Your task to perform on an android device: turn on javascript in the chrome app Image 0: 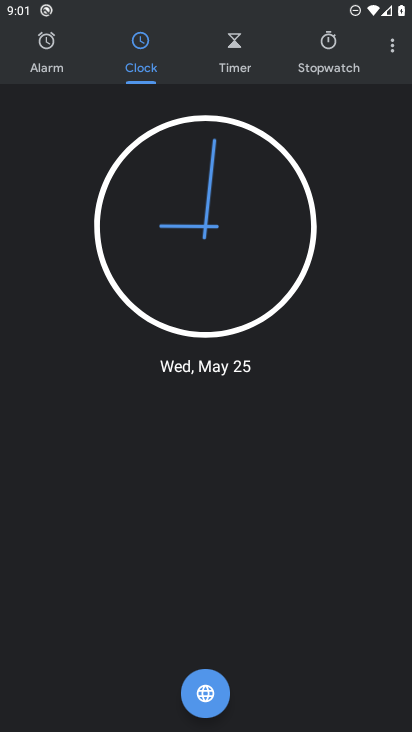
Step 0: press home button
Your task to perform on an android device: turn on javascript in the chrome app Image 1: 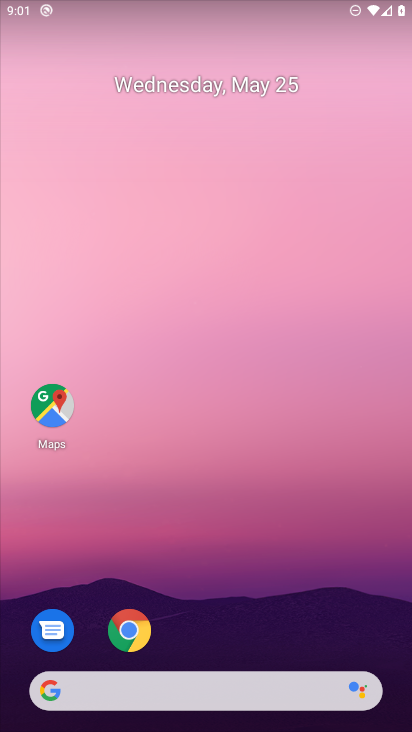
Step 1: click (140, 628)
Your task to perform on an android device: turn on javascript in the chrome app Image 2: 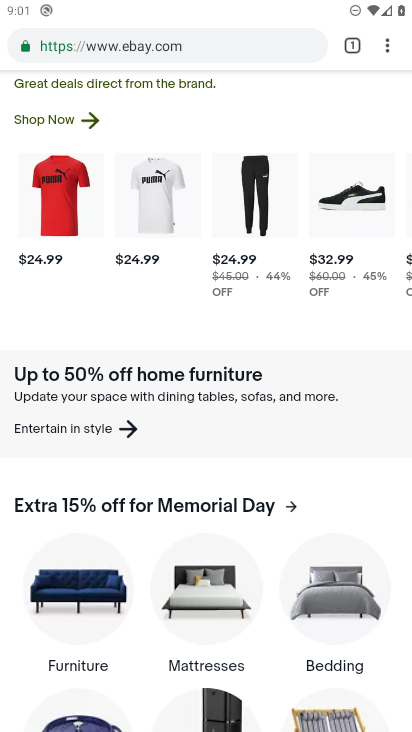
Step 2: click (388, 48)
Your task to perform on an android device: turn on javascript in the chrome app Image 3: 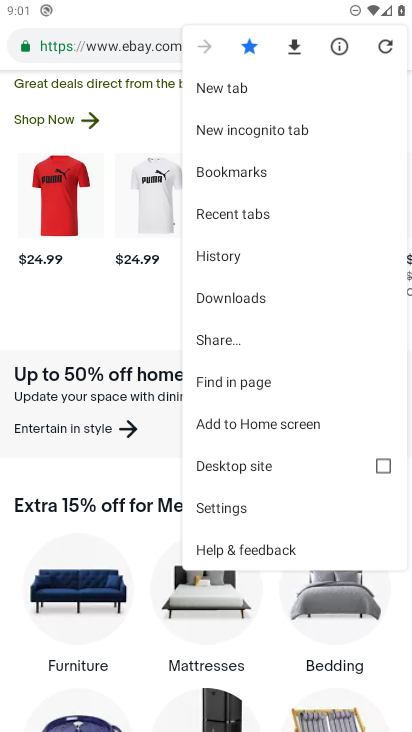
Step 3: click (223, 511)
Your task to perform on an android device: turn on javascript in the chrome app Image 4: 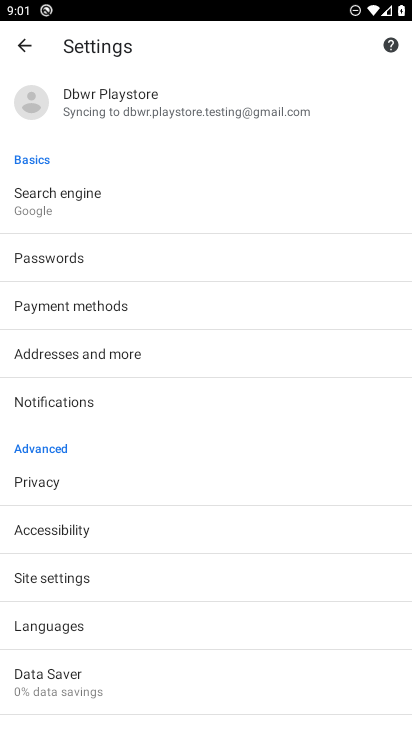
Step 4: click (52, 575)
Your task to perform on an android device: turn on javascript in the chrome app Image 5: 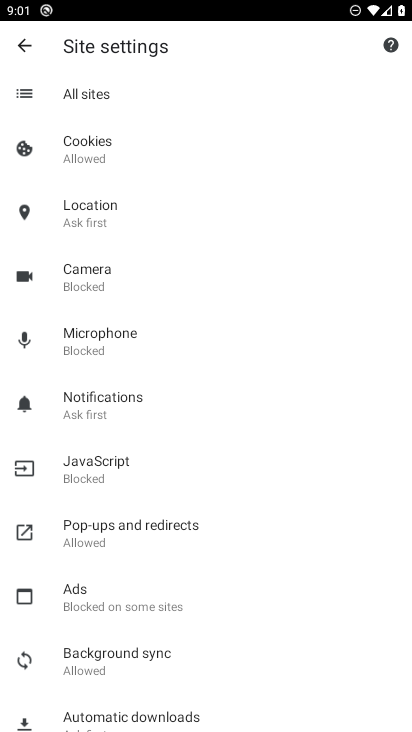
Step 5: click (91, 477)
Your task to perform on an android device: turn on javascript in the chrome app Image 6: 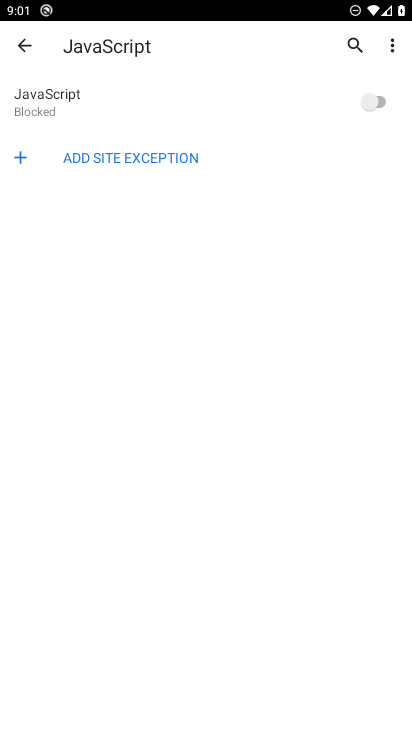
Step 6: click (387, 99)
Your task to perform on an android device: turn on javascript in the chrome app Image 7: 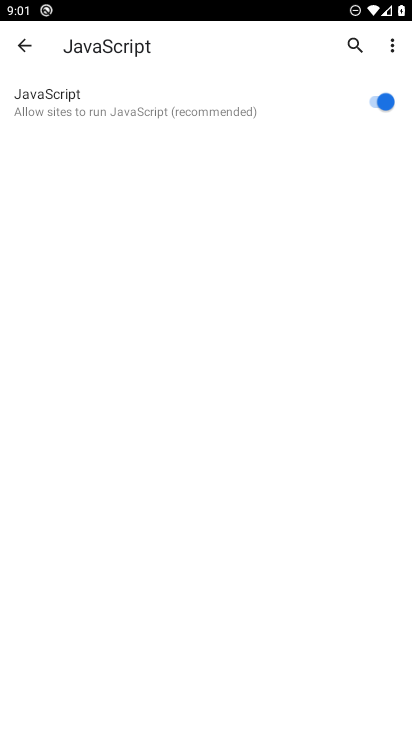
Step 7: task complete